Your task to perform on an android device: Go to accessibility settings Image 0: 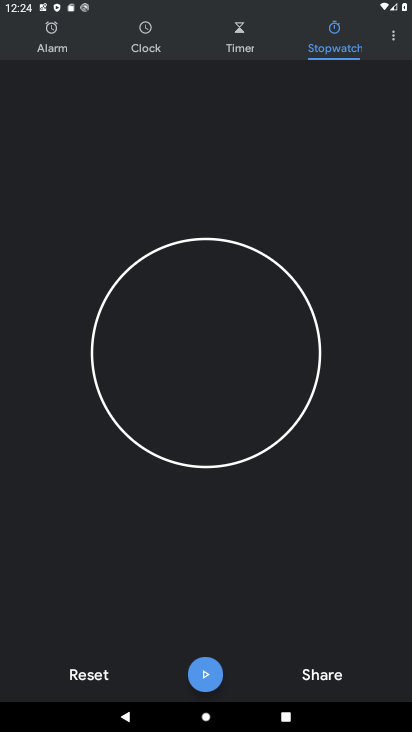
Step 0: press back button
Your task to perform on an android device: Go to accessibility settings Image 1: 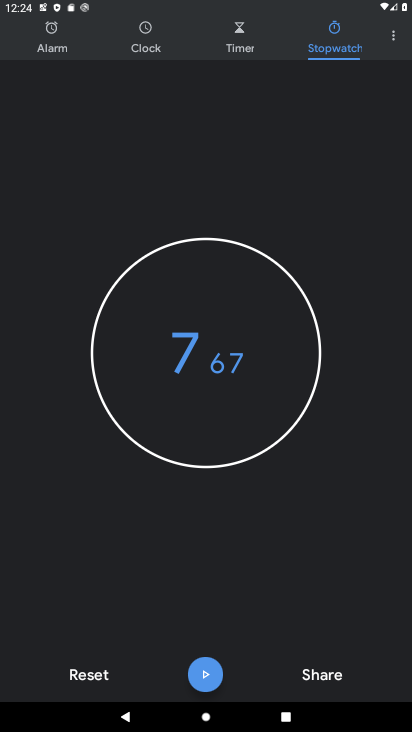
Step 1: press back button
Your task to perform on an android device: Go to accessibility settings Image 2: 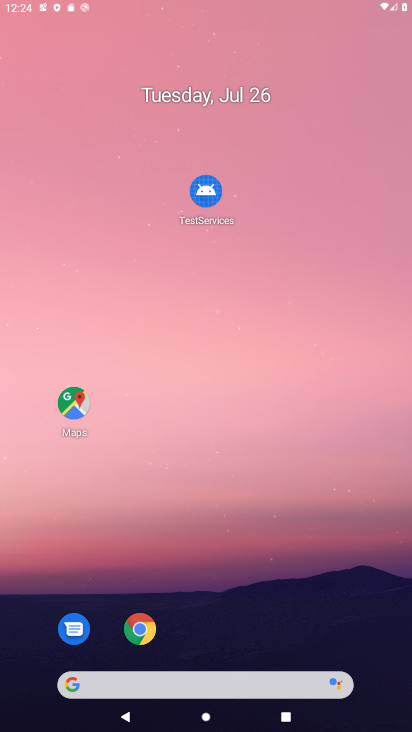
Step 2: press back button
Your task to perform on an android device: Go to accessibility settings Image 3: 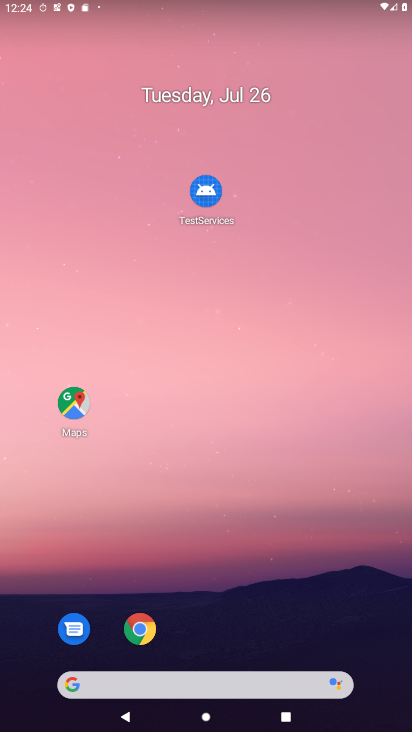
Step 3: press back button
Your task to perform on an android device: Go to accessibility settings Image 4: 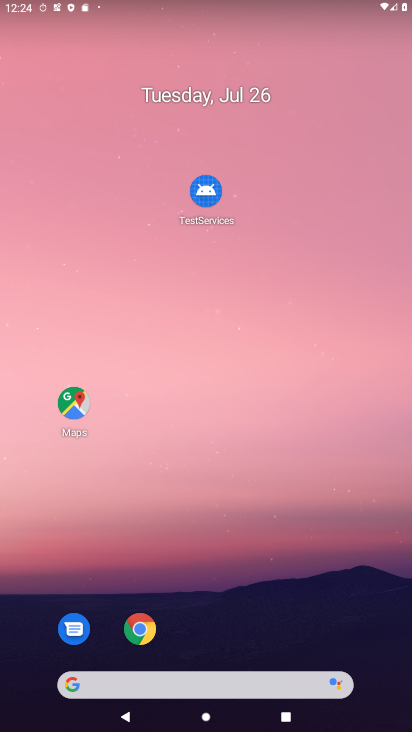
Step 4: drag from (212, 429) to (178, 71)
Your task to perform on an android device: Go to accessibility settings Image 5: 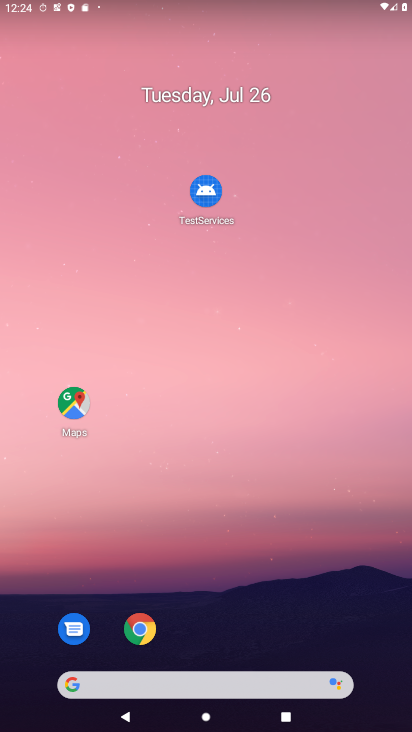
Step 5: drag from (181, 591) to (171, 169)
Your task to perform on an android device: Go to accessibility settings Image 6: 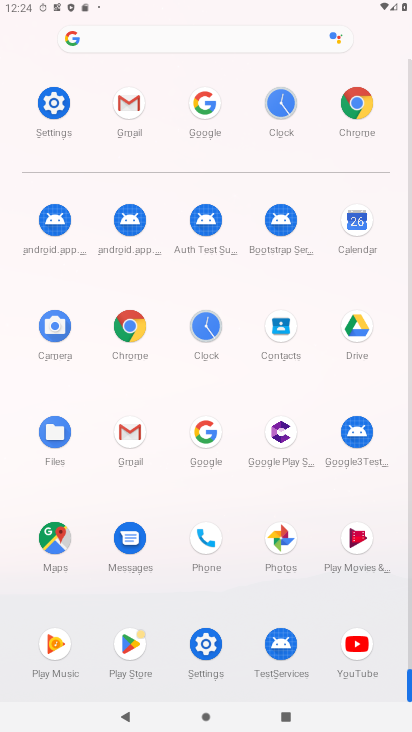
Step 6: drag from (198, 327) to (193, 18)
Your task to perform on an android device: Go to accessibility settings Image 7: 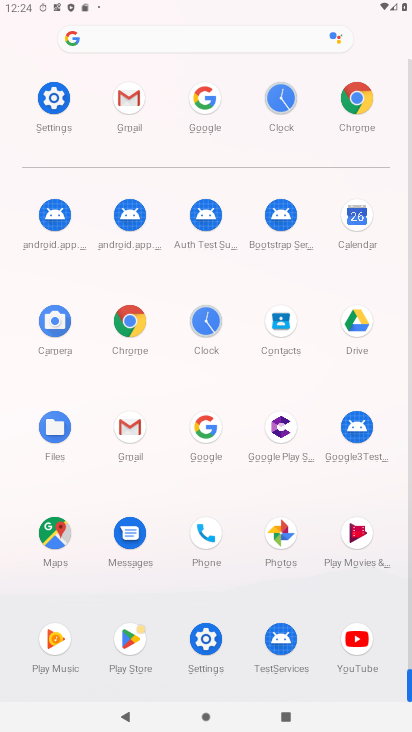
Step 7: click (200, 641)
Your task to perform on an android device: Go to accessibility settings Image 8: 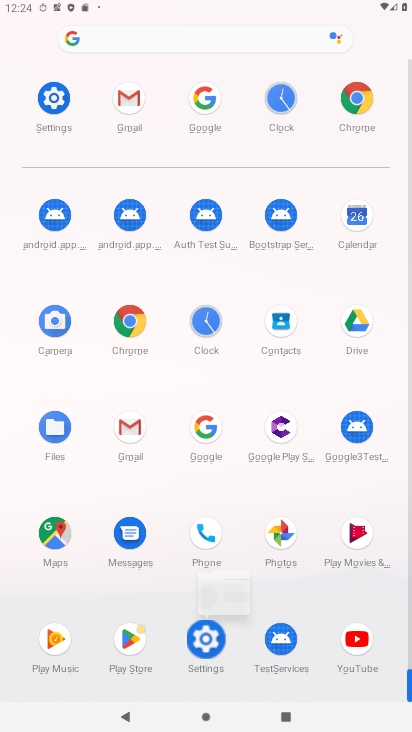
Step 8: click (206, 632)
Your task to perform on an android device: Go to accessibility settings Image 9: 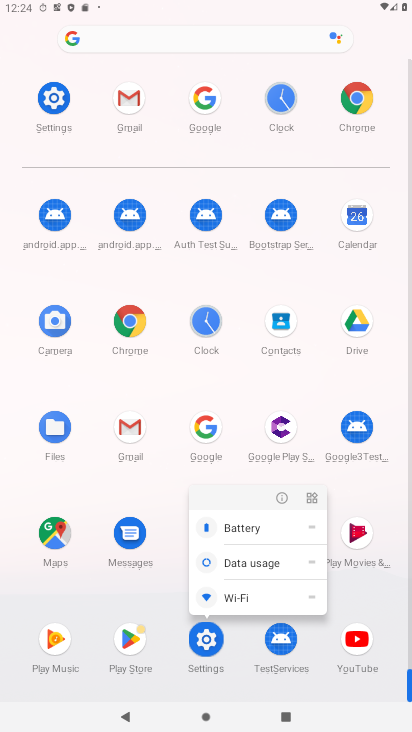
Step 9: click (206, 632)
Your task to perform on an android device: Go to accessibility settings Image 10: 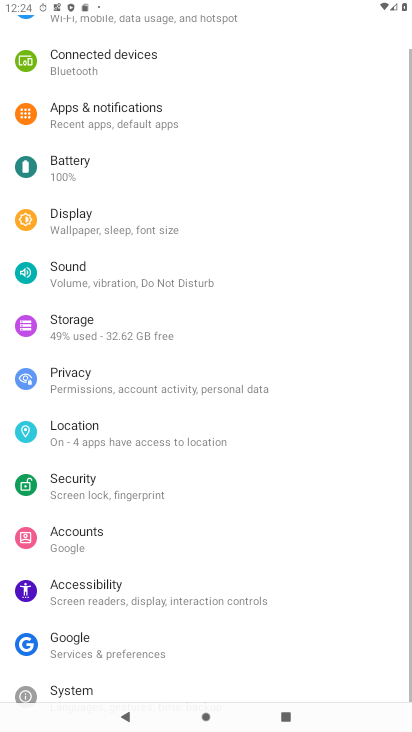
Step 10: click (205, 628)
Your task to perform on an android device: Go to accessibility settings Image 11: 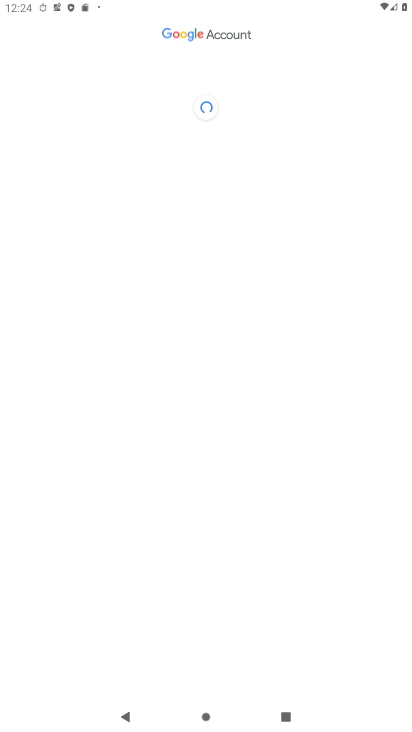
Step 11: click (90, 537)
Your task to perform on an android device: Go to accessibility settings Image 12: 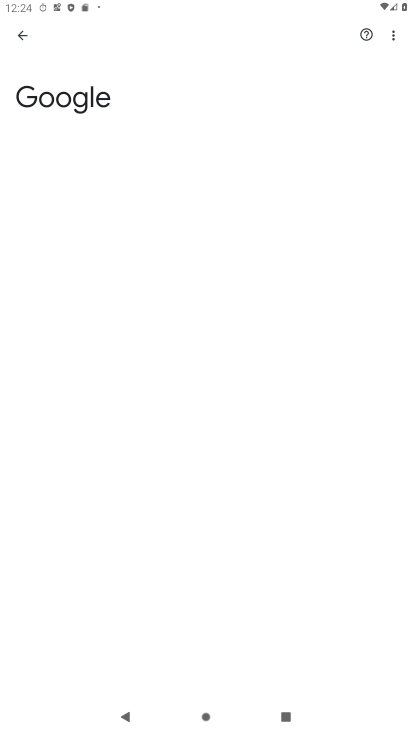
Step 12: click (90, 537)
Your task to perform on an android device: Go to accessibility settings Image 13: 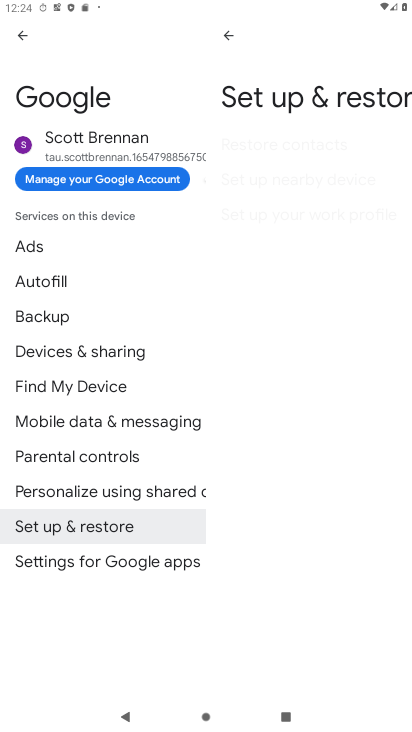
Step 13: click (90, 537)
Your task to perform on an android device: Go to accessibility settings Image 14: 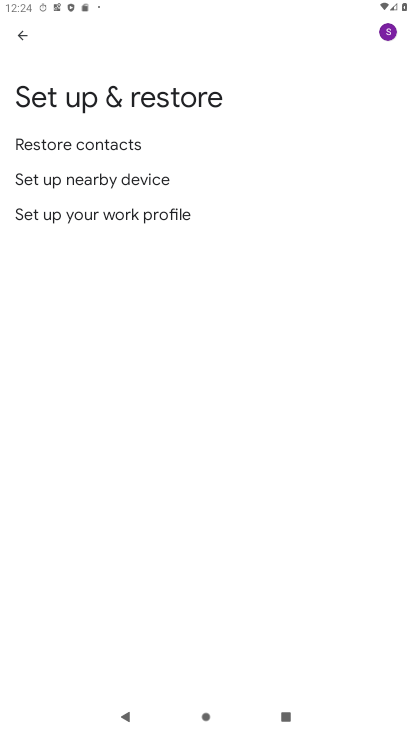
Step 14: click (90, 537)
Your task to perform on an android device: Go to accessibility settings Image 15: 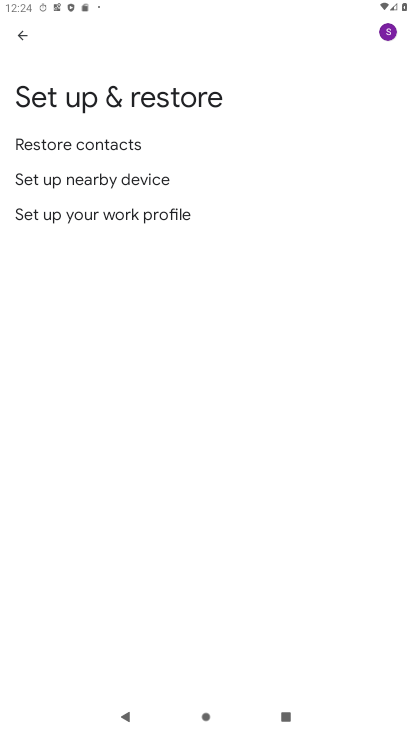
Step 15: click (91, 538)
Your task to perform on an android device: Go to accessibility settings Image 16: 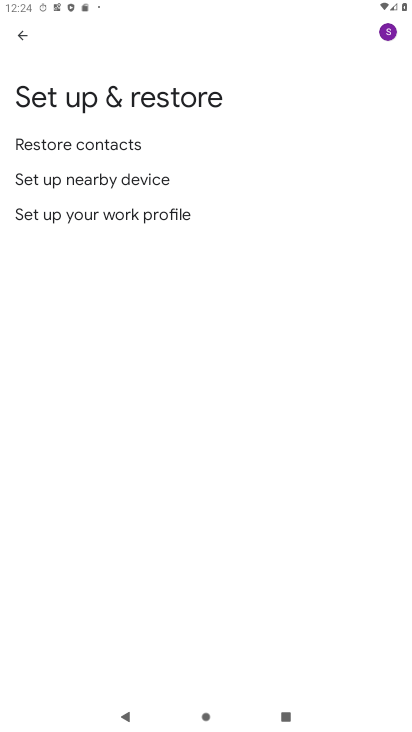
Step 16: click (91, 538)
Your task to perform on an android device: Go to accessibility settings Image 17: 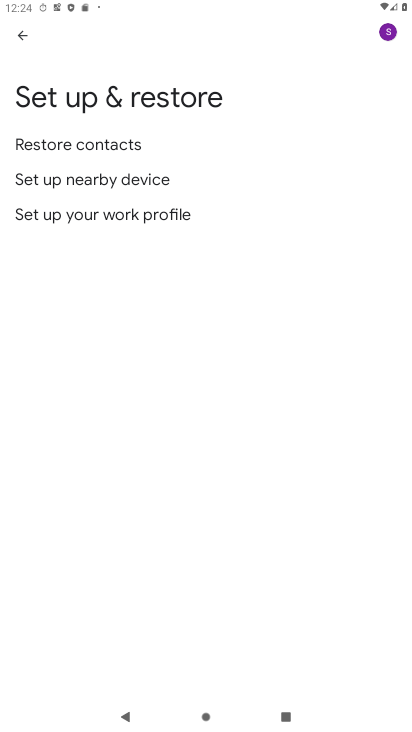
Step 17: click (25, 31)
Your task to perform on an android device: Go to accessibility settings Image 18: 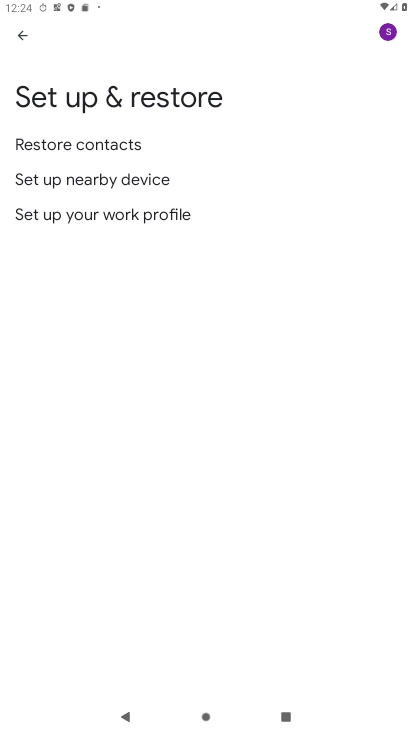
Step 18: click (20, 30)
Your task to perform on an android device: Go to accessibility settings Image 19: 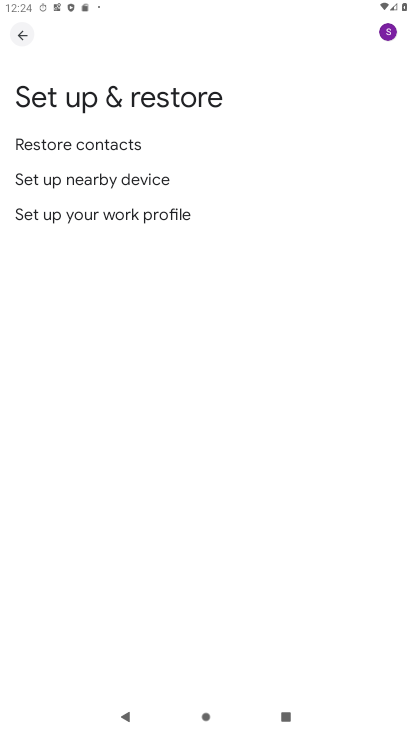
Step 19: click (20, 30)
Your task to perform on an android device: Go to accessibility settings Image 20: 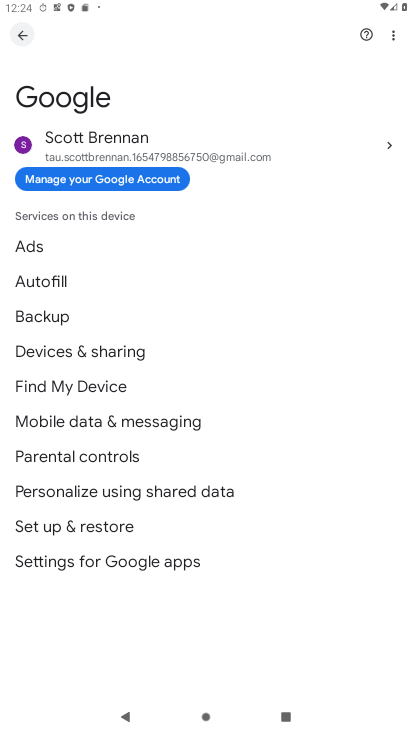
Step 20: click (21, 31)
Your task to perform on an android device: Go to accessibility settings Image 21: 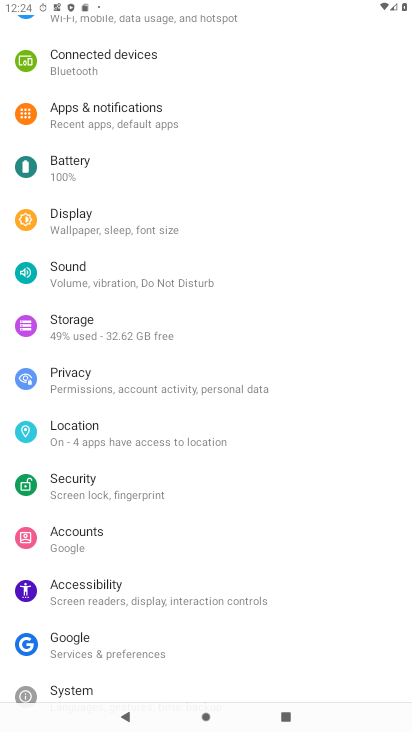
Step 21: click (87, 584)
Your task to perform on an android device: Go to accessibility settings Image 22: 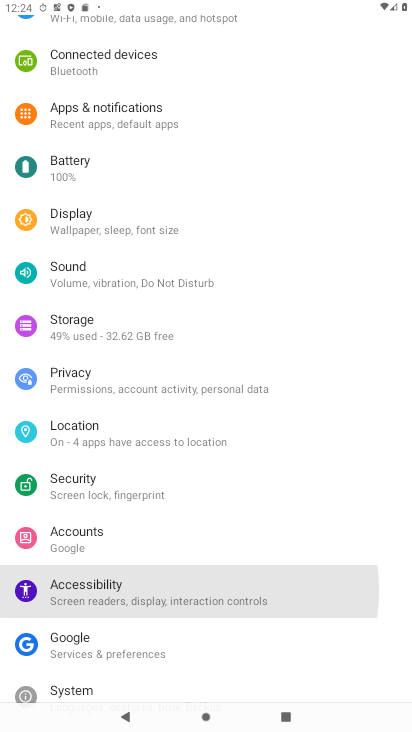
Step 22: click (88, 584)
Your task to perform on an android device: Go to accessibility settings Image 23: 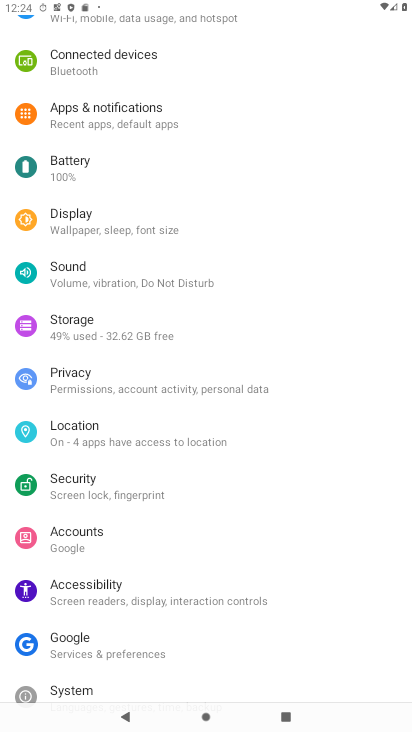
Step 23: click (89, 584)
Your task to perform on an android device: Go to accessibility settings Image 24: 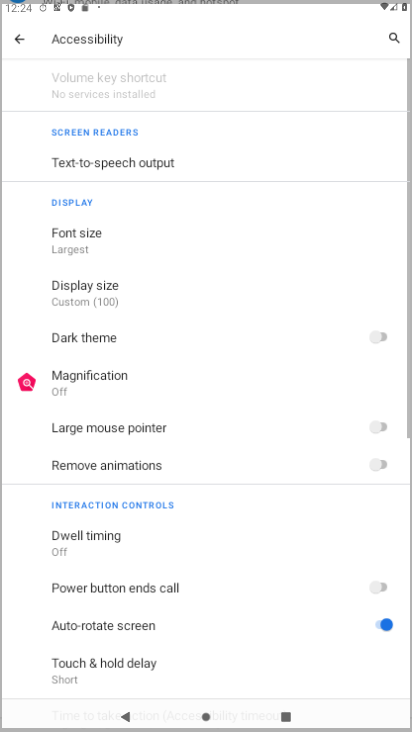
Step 24: click (89, 584)
Your task to perform on an android device: Go to accessibility settings Image 25: 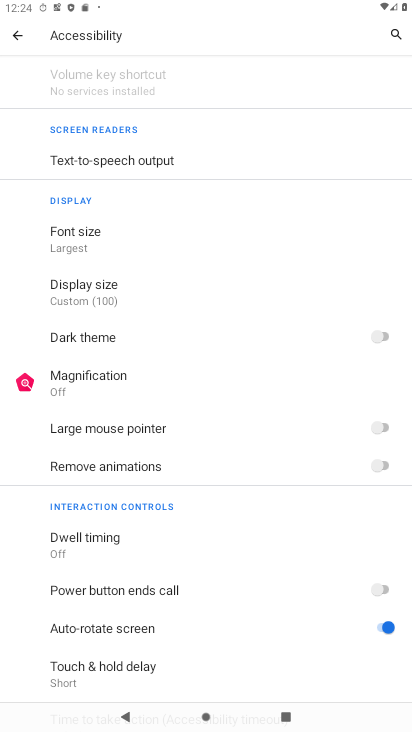
Step 25: task complete